Your task to perform on an android device: change the clock display to digital Image 0: 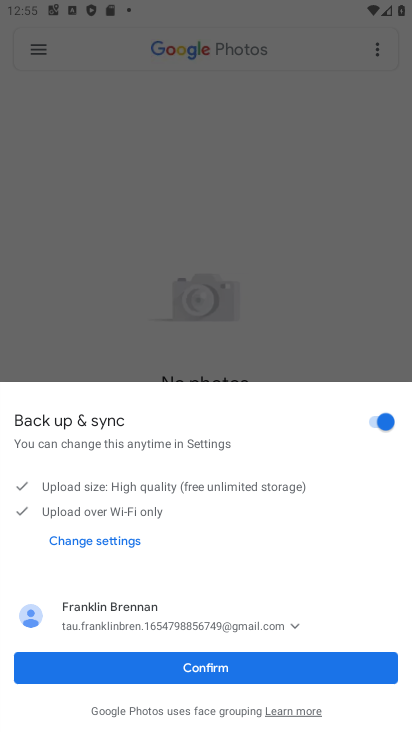
Step 0: press home button
Your task to perform on an android device: change the clock display to digital Image 1: 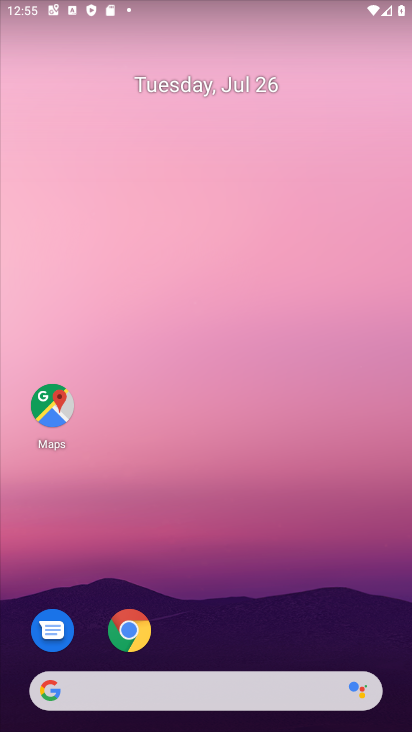
Step 1: drag from (399, 623) to (335, 115)
Your task to perform on an android device: change the clock display to digital Image 2: 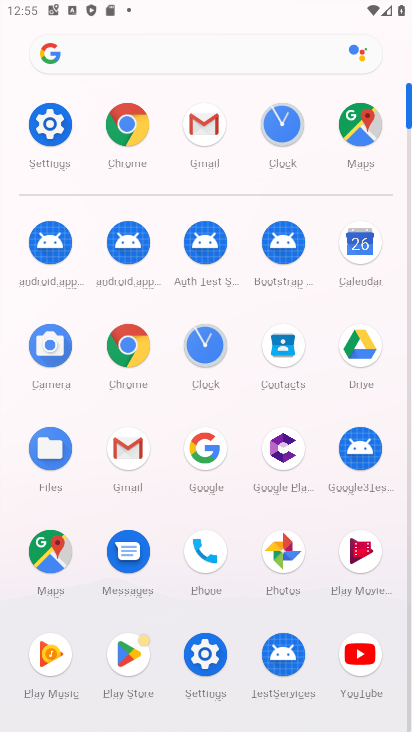
Step 2: click (204, 346)
Your task to perform on an android device: change the clock display to digital Image 3: 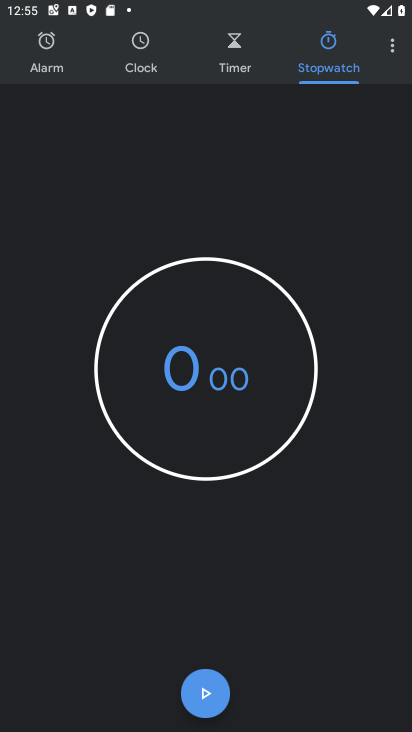
Step 3: click (392, 52)
Your task to perform on an android device: change the clock display to digital Image 4: 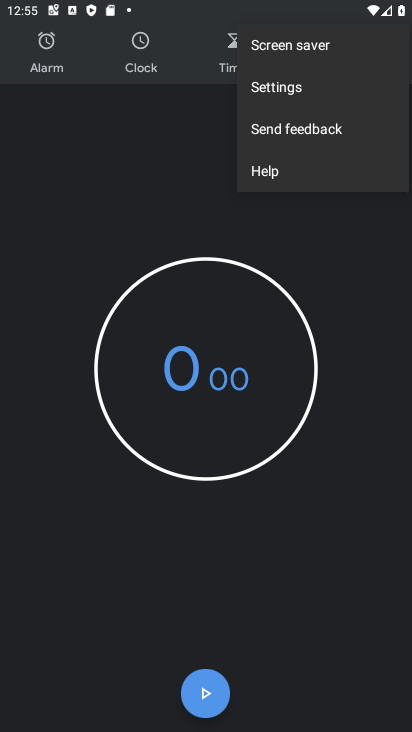
Step 4: click (282, 82)
Your task to perform on an android device: change the clock display to digital Image 5: 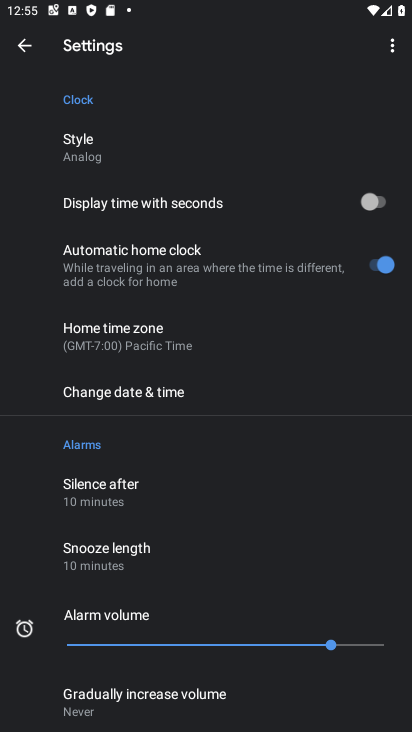
Step 5: click (88, 142)
Your task to perform on an android device: change the clock display to digital Image 6: 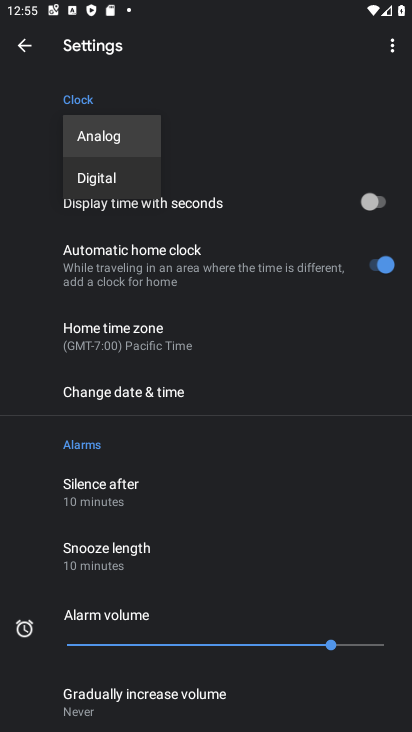
Step 6: click (113, 178)
Your task to perform on an android device: change the clock display to digital Image 7: 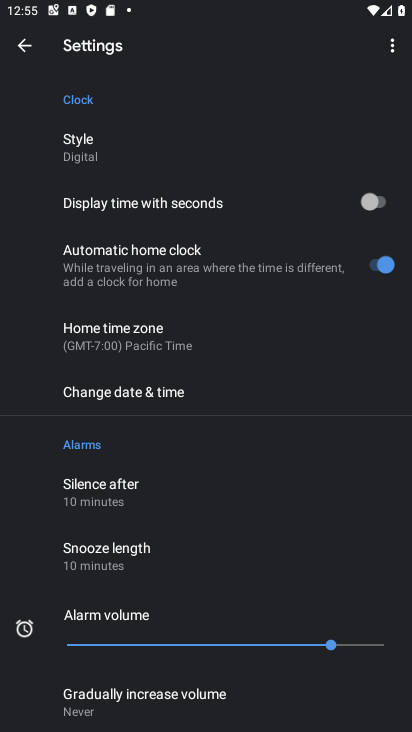
Step 7: task complete